Your task to perform on an android device: turn off javascript in the chrome app Image 0: 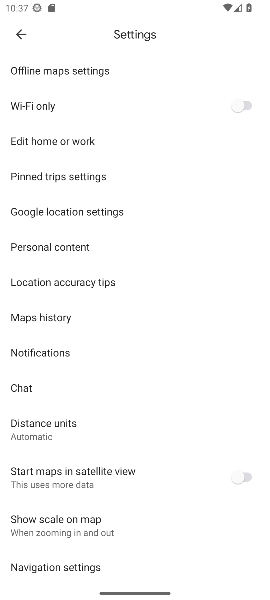
Step 0: drag from (45, 471) to (45, 200)
Your task to perform on an android device: turn off javascript in the chrome app Image 1: 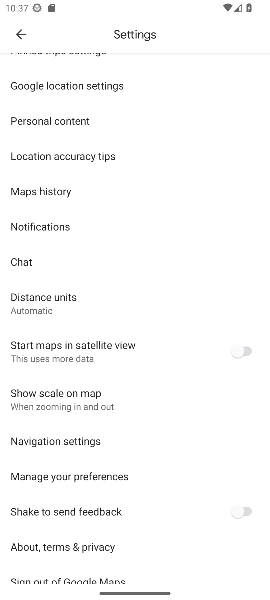
Step 1: drag from (81, 170) to (81, 527)
Your task to perform on an android device: turn off javascript in the chrome app Image 2: 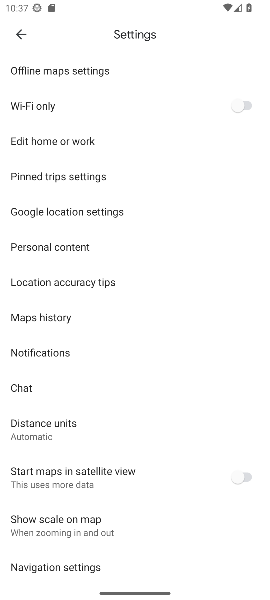
Step 2: press home button
Your task to perform on an android device: turn off javascript in the chrome app Image 3: 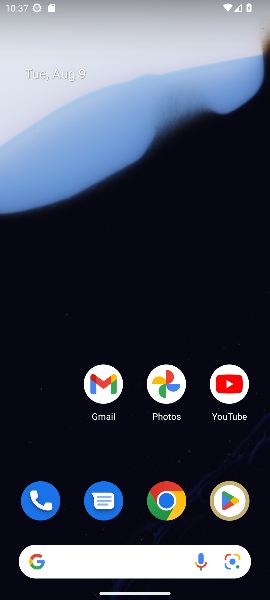
Step 3: click (167, 499)
Your task to perform on an android device: turn off javascript in the chrome app Image 4: 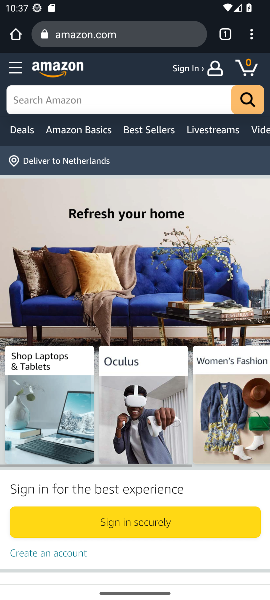
Step 4: click (109, 32)
Your task to perform on an android device: turn off javascript in the chrome app Image 5: 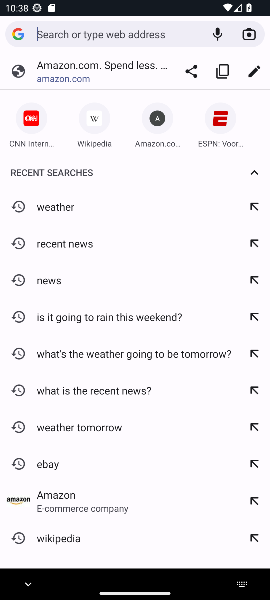
Step 5: press back button
Your task to perform on an android device: turn off javascript in the chrome app Image 6: 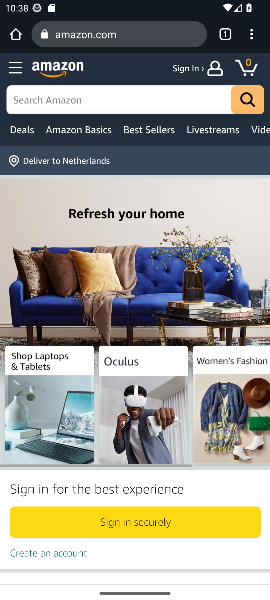
Step 6: click (250, 34)
Your task to perform on an android device: turn off javascript in the chrome app Image 7: 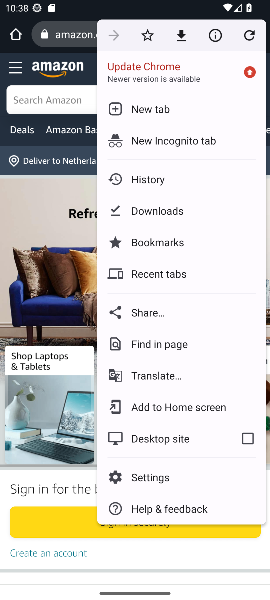
Step 7: click (156, 473)
Your task to perform on an android device: turn off javascript in the chrome app Image 8: 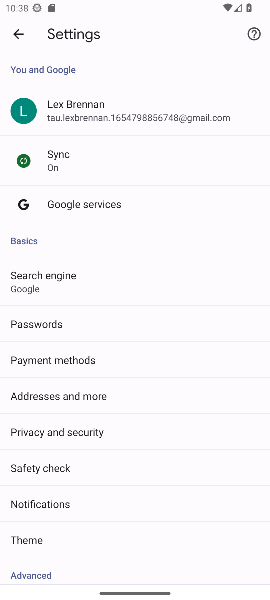
Step 8: drag from (72, 521) to (77, 187)
Your task to perform on an android device: turn off javascript in the chrome app Image 9: 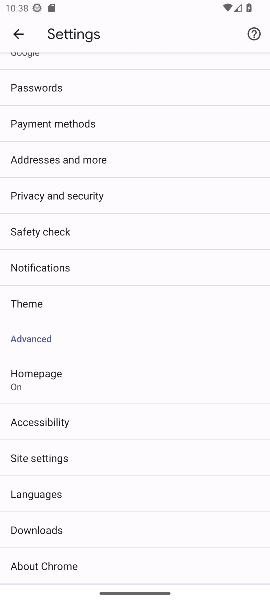
Step 9: drag from (89, 551) to (117, 353)
Your task to perform on an android device: turn off javascript in the chrome app Image 10: 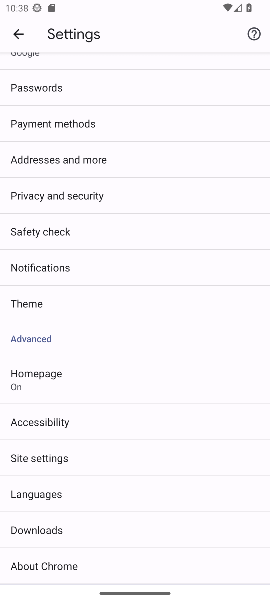
Step 10: click (34, 461)
Your task to perform on an android device: turn off javascript in the chrome app Image 11: 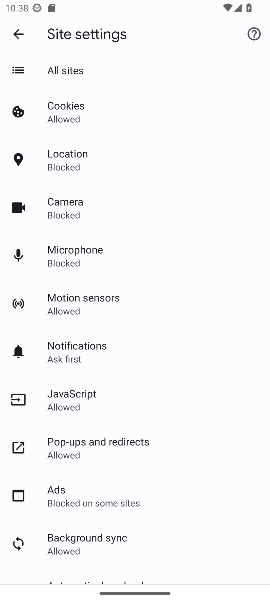
Step 11: click (88, 446)
Your task to perform on an android device: turn off javascript in the chrome app Image 12: 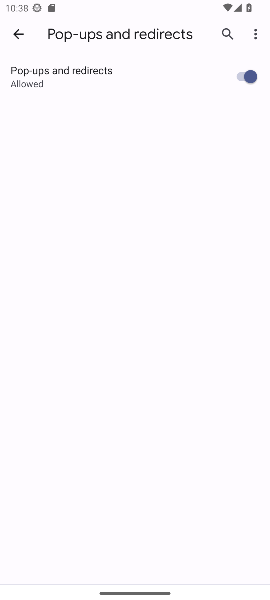
Step 12: click (242, 78)
Your task to perform on an android device: turn off javascript in the chrome app Image 13: 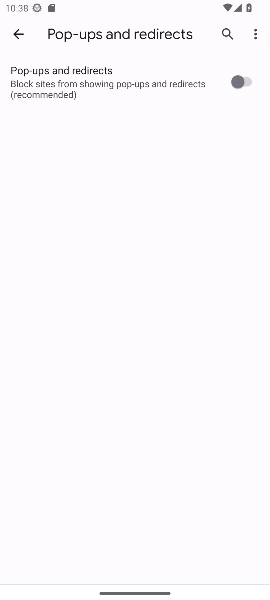
Step 13: task complete